Your task to perform on an android device: Go to CNN.com Image 0: 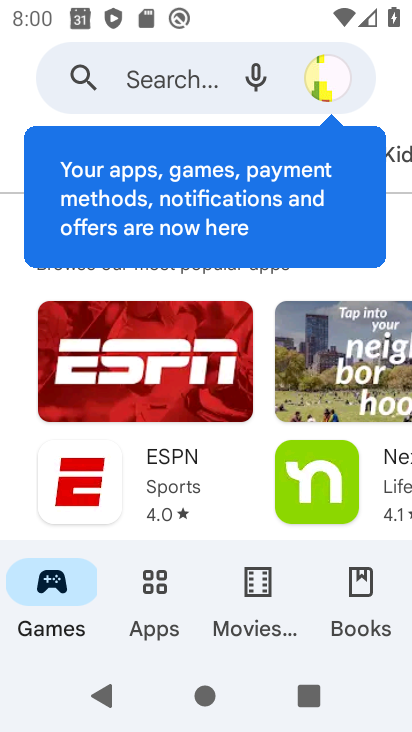
Step 0: drag from (254, 497) to (248, 177)
Your task to perform on an android device: Go to CNN.com Image 1: 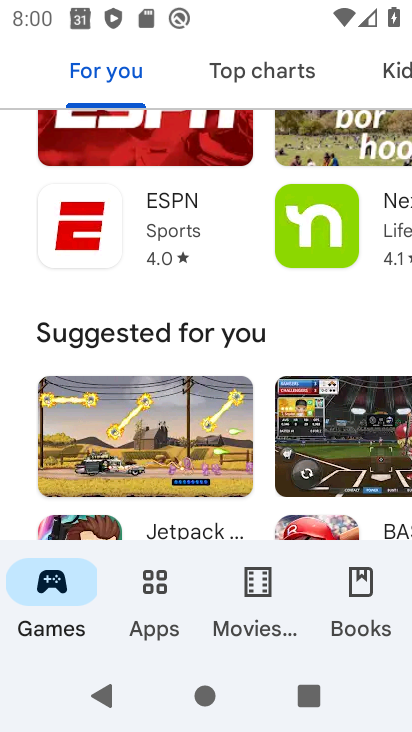
Step 1: drag from (209, 292) to (327, 730)
Your task to perform on an android device: Go to CNN.com Image 2: 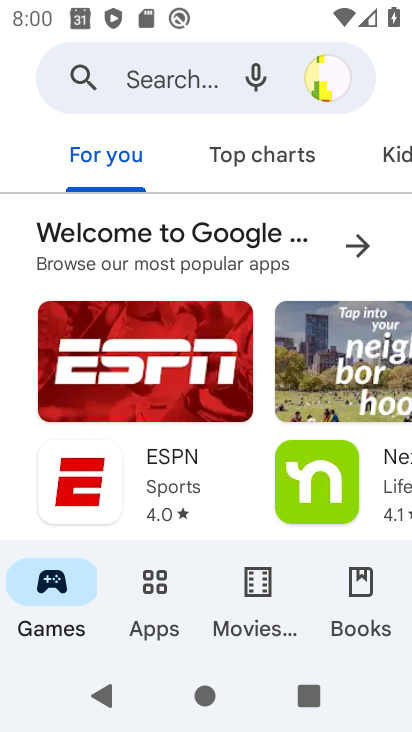
Step 2: press home button
Your task to perform on an android device: Go to CNN.com Image 3: 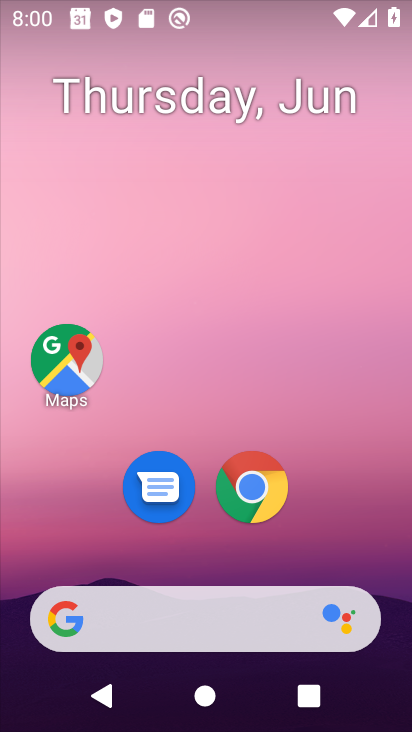
Step 3: click (153, 614)
Your task to perform on an android device: Go to CNN.com Image 4: 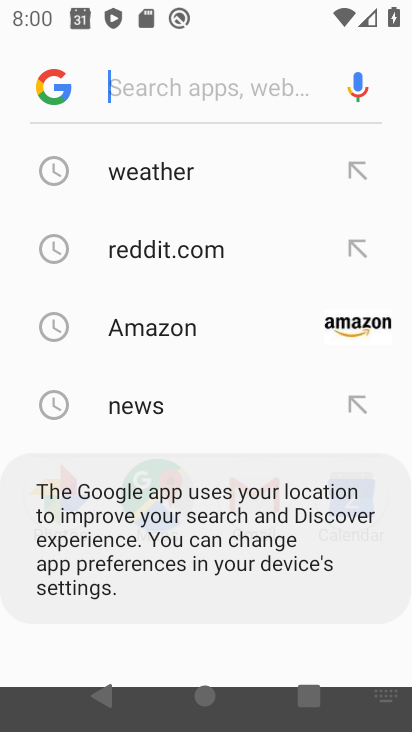
Step 4: click (172, 85)
Your task to perform on an android device: Go to CNN.com Image 5: 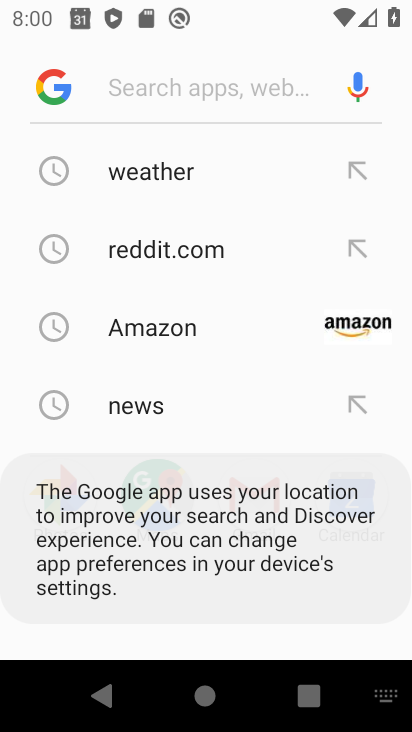
Step 5: click (175, 89)
Your task to perform on an android device: Go to CNN.com Image 6: 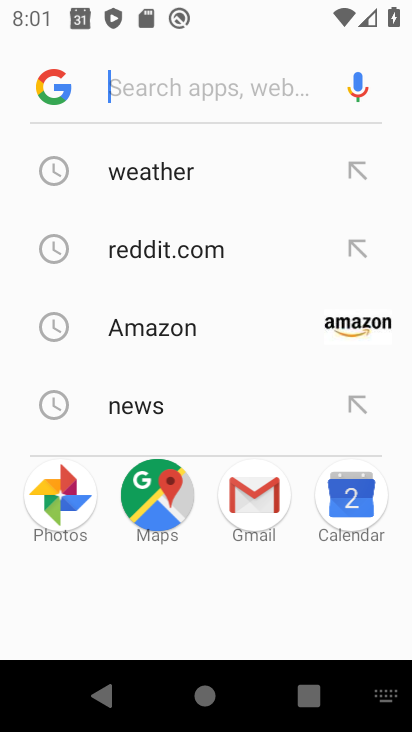
Step 6: click (138, 84)
Your task to perform on an android device: Go to CNN.com Image 7: 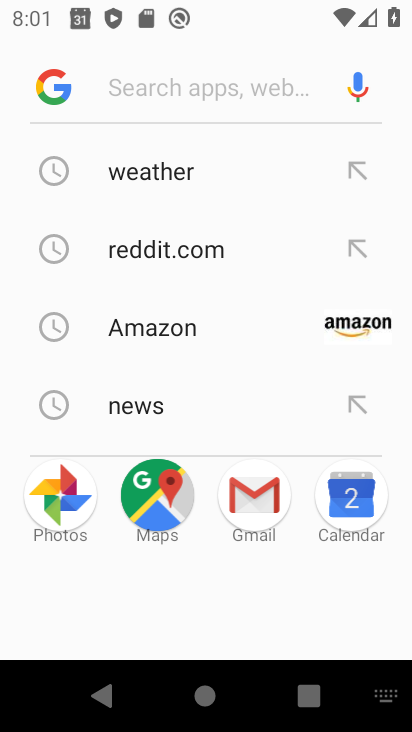
Step 7: type "CNN.com"
Your task to perform on an android device: Go to CNN.com Image 8: 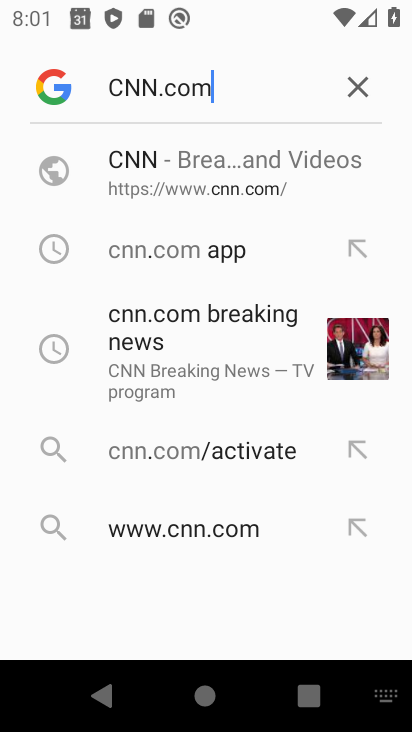
Step 8: click (183, 178)
Your task to perform on an android device: Go to CNN.com Image 9: 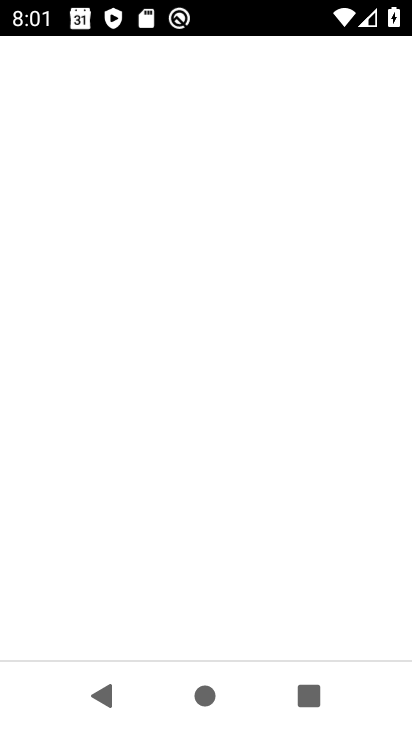
Step 9: drag from (289, 515) to (298, 198)
Your task to perform on an android device: Go to CNN.com Image 10: 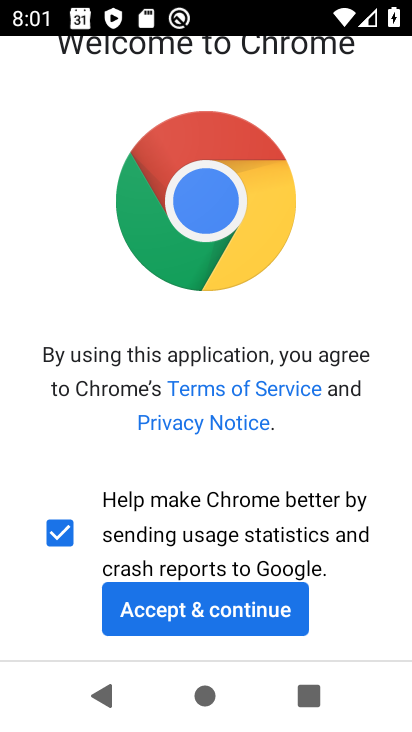
Step 10: drag from (210, 598) to (320, 230)
Your task to perform on an android device: Go to CNN.com Image 11: 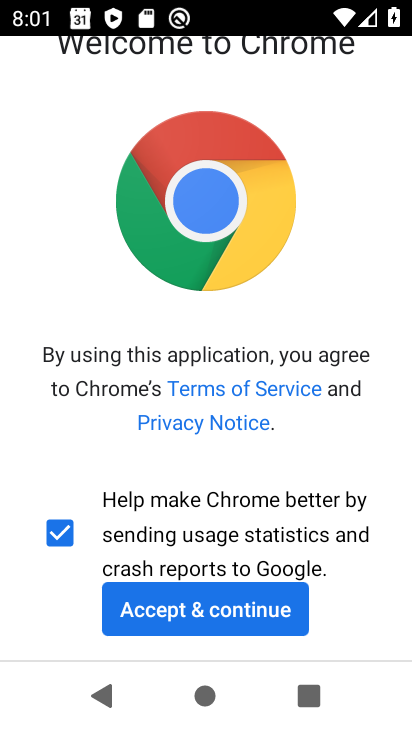
Step 11: drag from (210, 523) to (347, 192)
Your task to perform on an android device: Go to CNN.com Image 12: 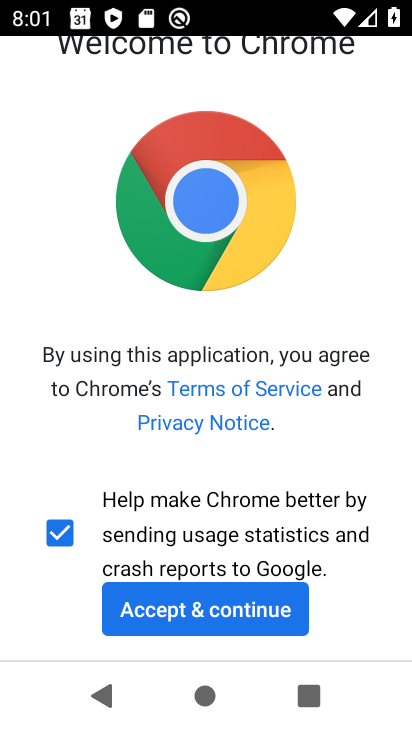
Step 12: click (196, 617)
Your task to perform on an android device: Go to CNN.com Image 13: 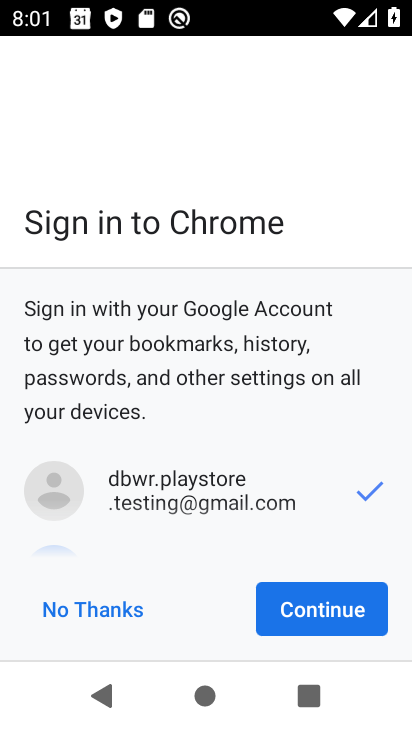
Step 13: click (314, 619)
Your task to perform on an android device: Go to CNN.com Image 14: 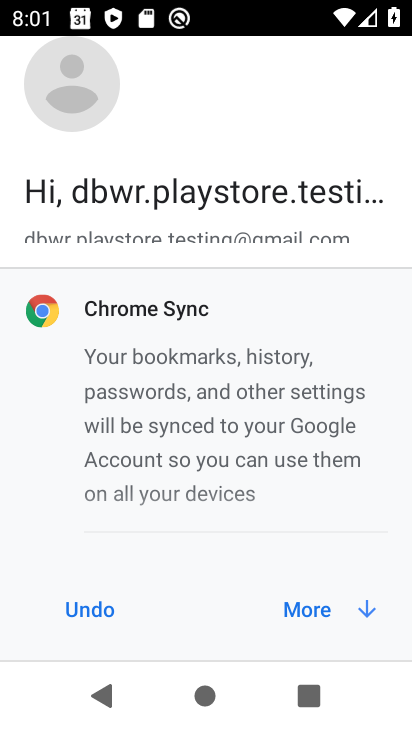
Step 14: drag from (288, 495) to (362, 207)
Your task to perform on an android device: Go to CNN.com Image 15: 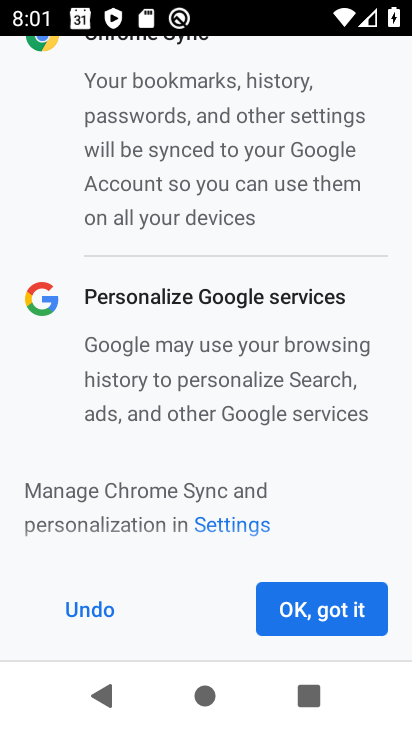
Step 15: click (310, 608)
Your task to perform on an android device: Go to CNN.com Image 16: 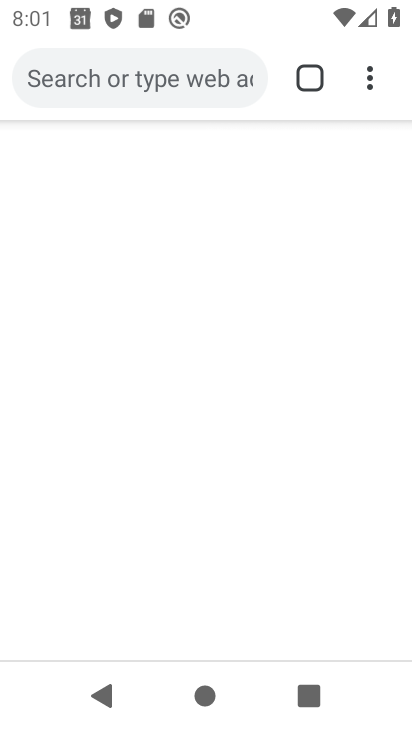
Step 16: task complete